Your task to perform on an android device: open app "ColorNote Notepad Notes" (install if not already installed) and enter user name: "unbridled@gmail.com" and password: "regularly" Image 0: 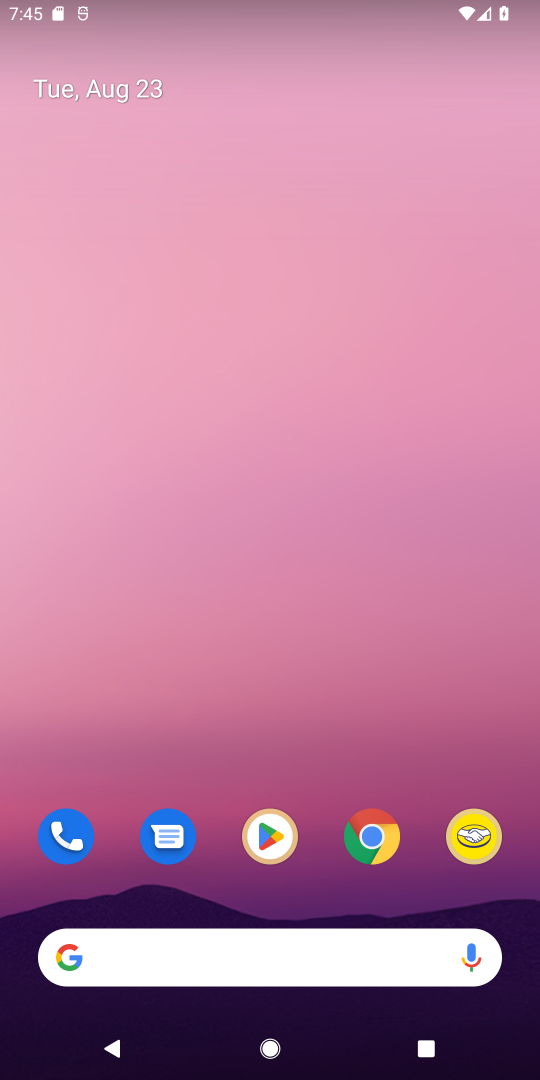
Step 0: click (257, 844)
Your task to perform on an android device: open app "ColorNote Notepad Notes" (install if not already installed) and enter user name: "unbridled@gmail.com" and password: "regularly" Image 1: 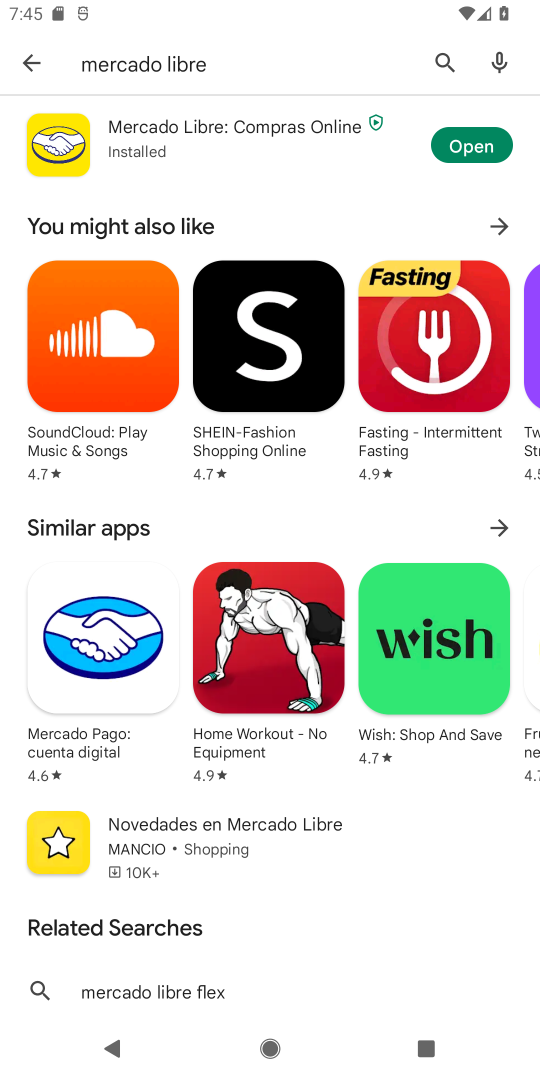
Step 1: click (442, 47)
Your task to perform on an android device: open app "ColorNote Notepad Notes" (install if not already installed) and enter user name: "unbridled@gmail.com" and password: "regularly" Image 2: 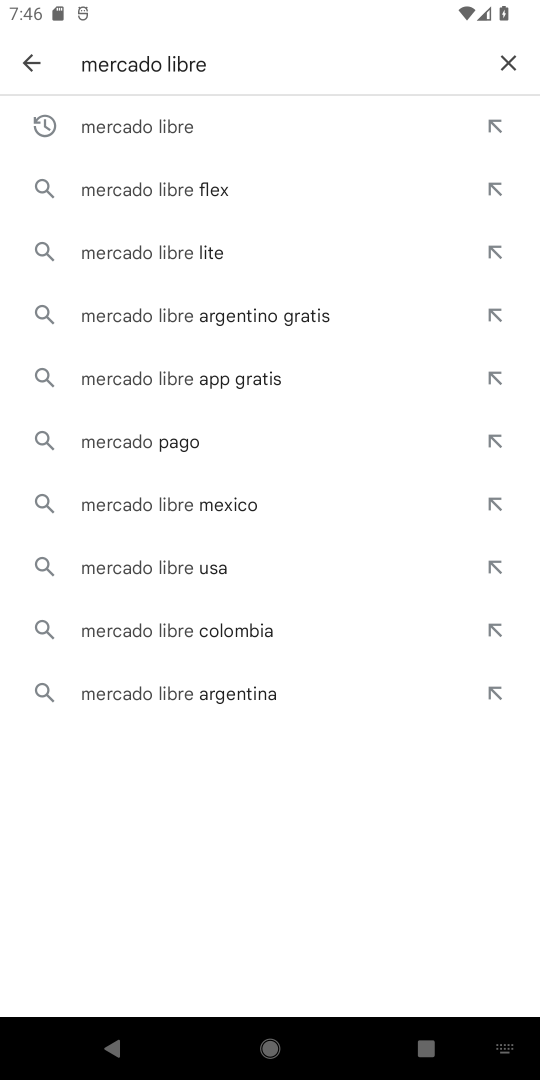
Step 2: click (514, 55)
Your task to perform on an android device: open app "ColorNote Notepad Notes" (install if not already installed) and enter user name: "unbridled@gmail.com" and password: "regularly" Image 3: 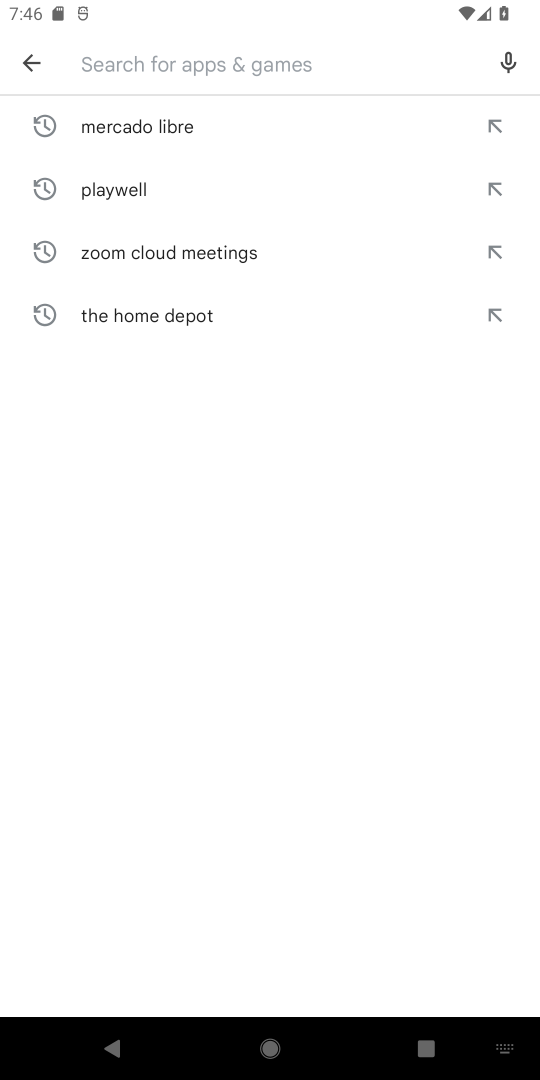
Step 3: type "ColorNote Notepad Notes"
Your task to perform on an android device: open app "ColorNote Notepad Notes" (install if not already installed) and enter user name: "unbridled@gmail.com" and password: "regularly" Image 4: 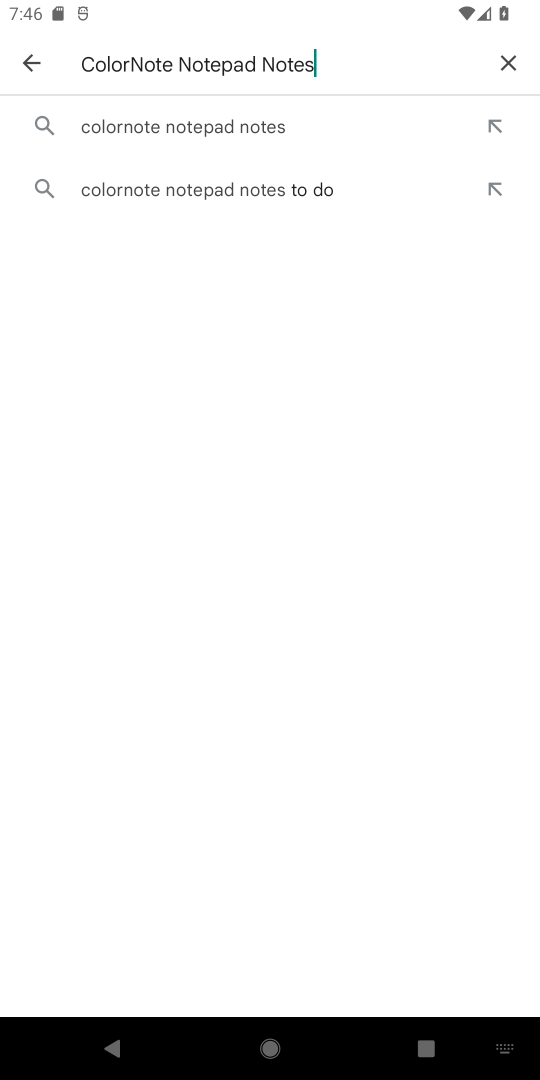
Step 4: click (173, 127)
Your task to perform on an android device: open app "ColorNote Notepad Notes" (install if not already installed) and enter user name: "unbridled@gmail.com" and password: "regularly" Image 5: 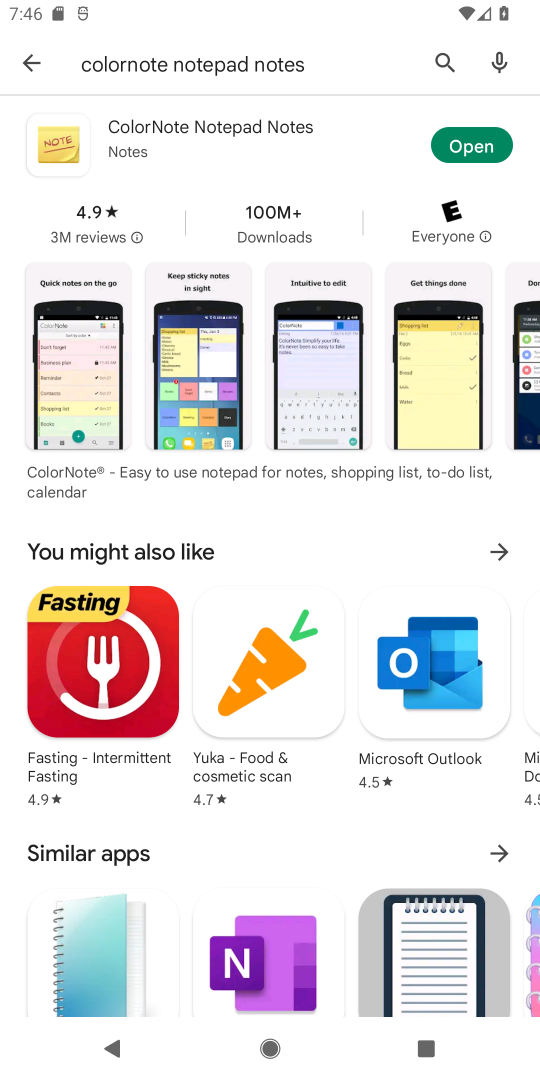
Step 5: click (481, 144)
Your task to perform on an android device: open app "ColorNote Notepad Notes" (install if not already installed) and enter user name: "unbridled@gmail.com" and password: "regularly" Image 6: 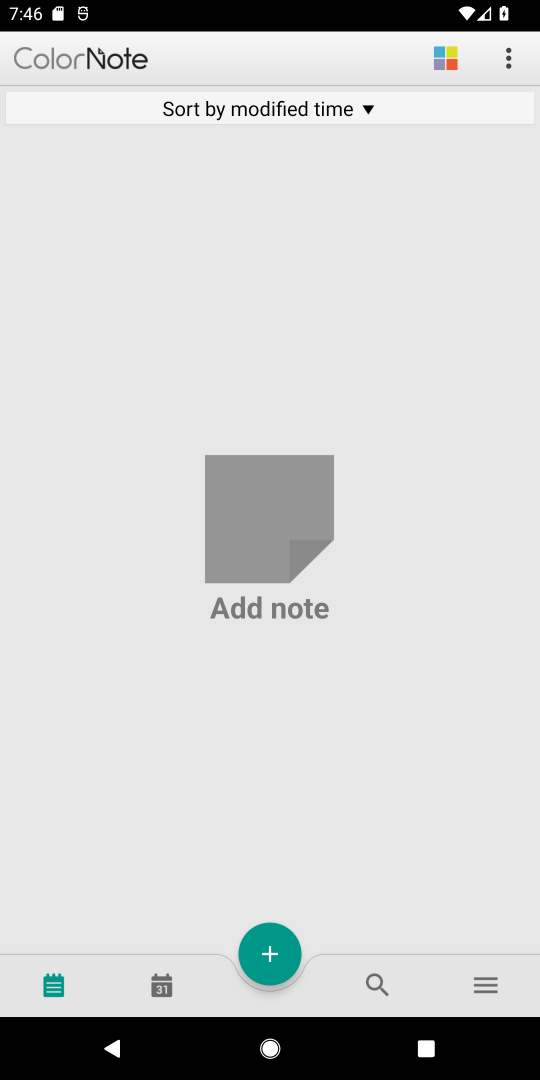
Step 6: task complete